Your task to perform on an android device: find photos in the google photos app Image 0: 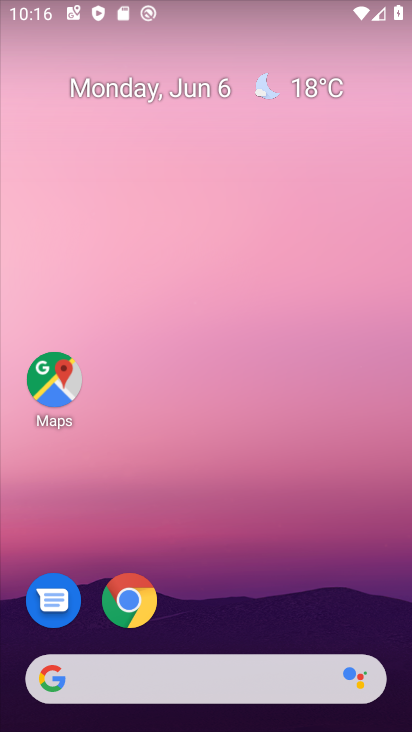
Step 0: drag from (255, 119) to (243, 37)
Your task to perform on an android device: find photos in the google photos app Image 1: 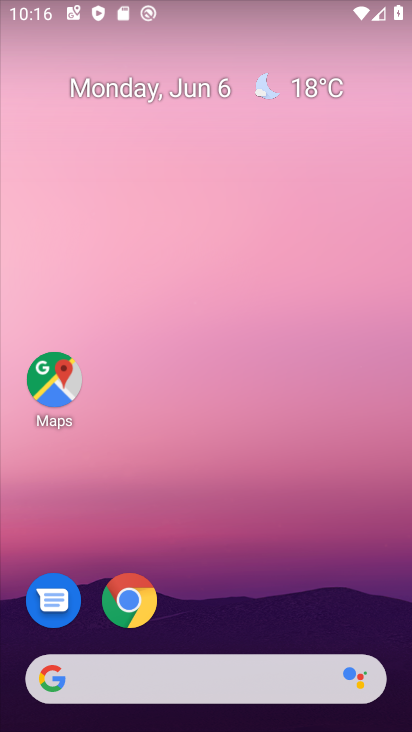
Step 1: drag from (219, 547) to (170, 27)
Your task to perform on an android device: find photos in the google photos app Image 2: 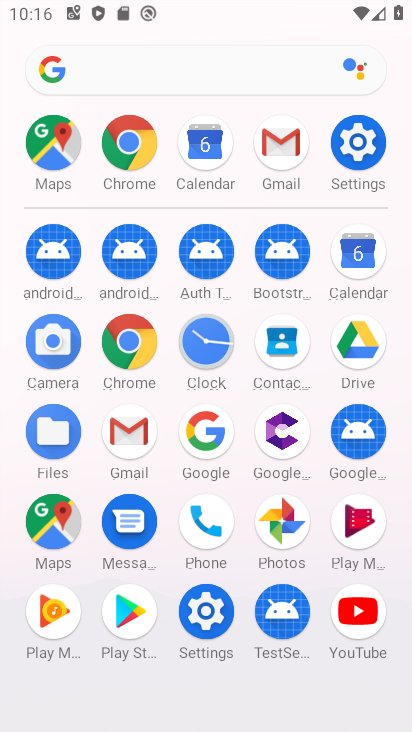
Step 2: click (281, 516)
Your task to perform on an android device: find photos in the google photos app Image 3: 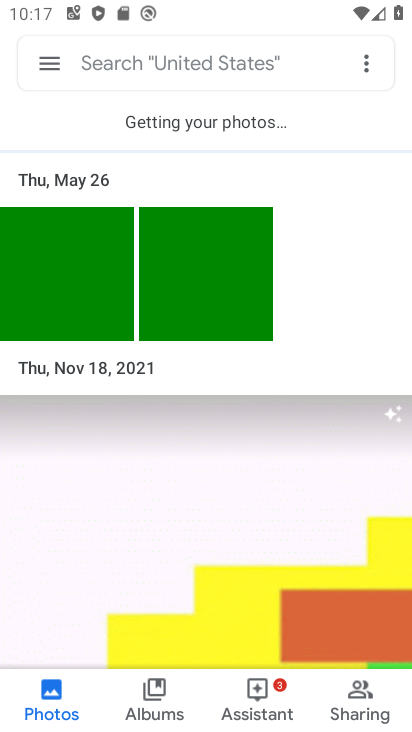
Step 3: task complete